Your task to perform on an android device: Open the calendar and show me this week's events? Image 0: 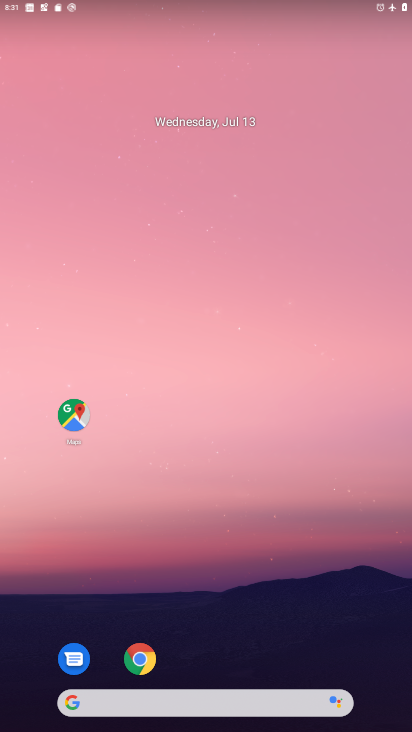
Step 0: drag from (251, 546) to (276, 51)
Your task to perform on an android device: Open the calendar and show me this week's events? Image 1: 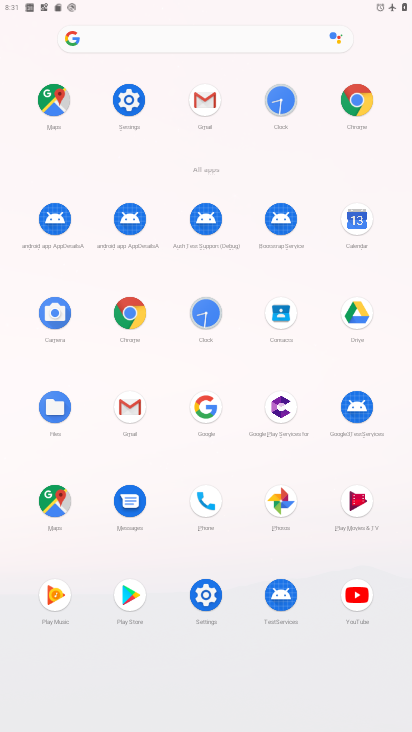
Step 1: click (357, 221)
Your task to perform on an android device: Open the calendar and show me this week's events? Image 2: 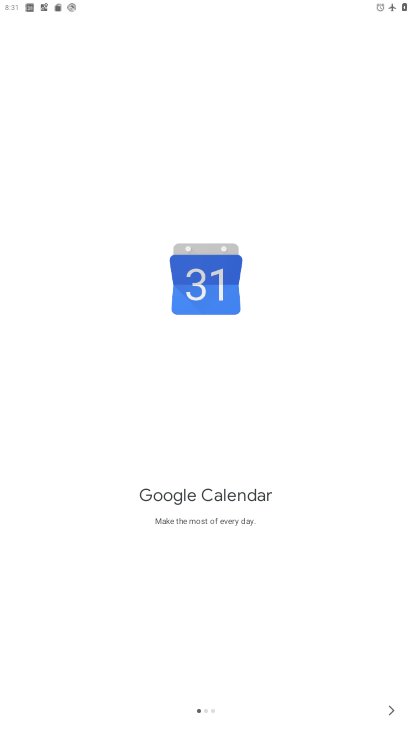
Step 2: click (388, 707)
Your task to perform on an android device: Open the calendar and show me this week's events? Image 3: 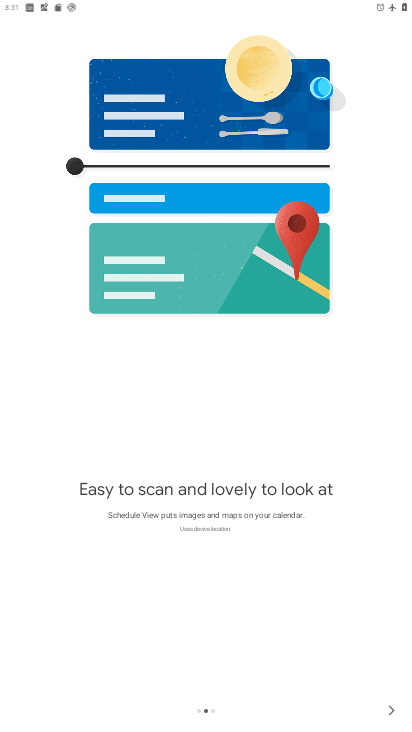
Step 3: click (388, 707)
Your task to perform on an android device: Open the calendar and show me this week's events? Image 4: 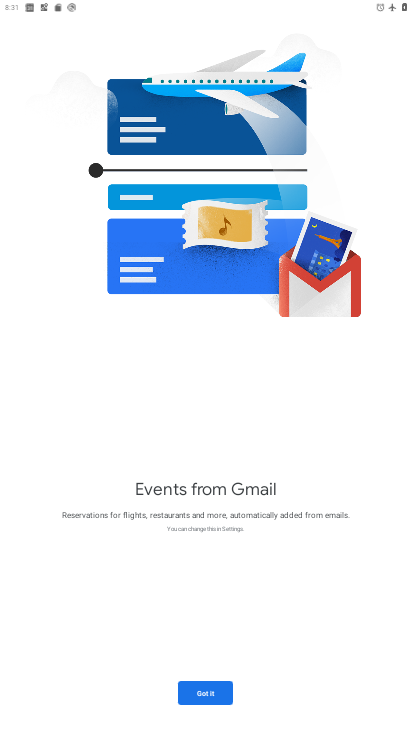
Step 4: click (200, 689)
Your task to perform on an android device: Open the calendar and show me this week's events? Image 5: 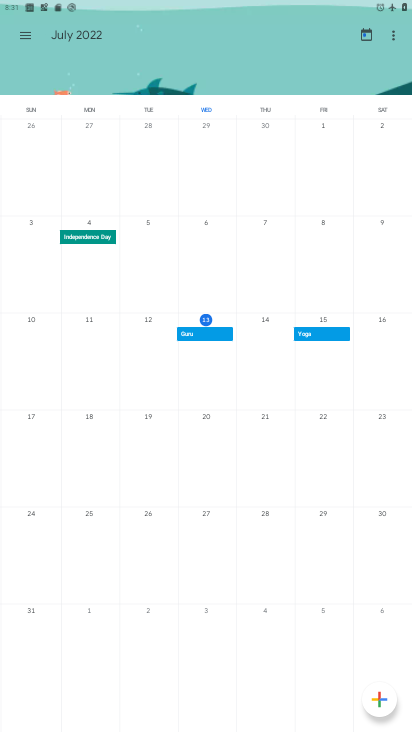
Step 5: click (23, 39)
Your task to perform on an android device: Open the calendar and show me this week's events? Image 6: 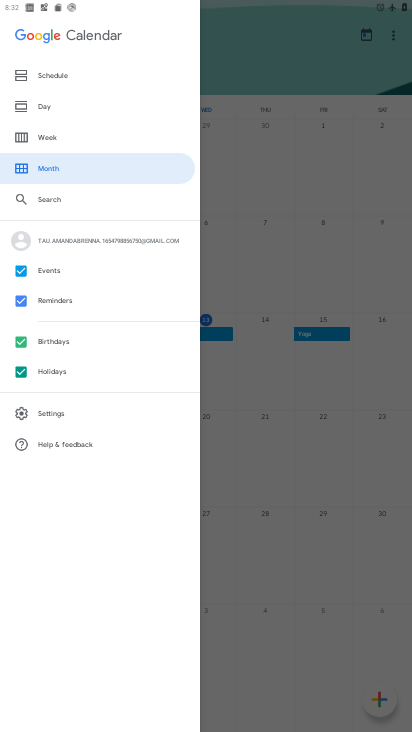
Step 6: click (38, 134)
Your task to perform on an android device: Open the calendar and show me this week's events? Image 7: 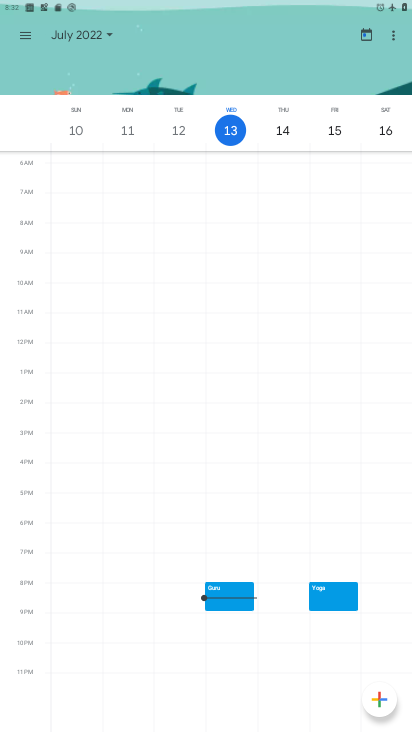
Step 7: task complete